Your task to perform on an android device: see tabs open on other devices in the chrome app Image 0: 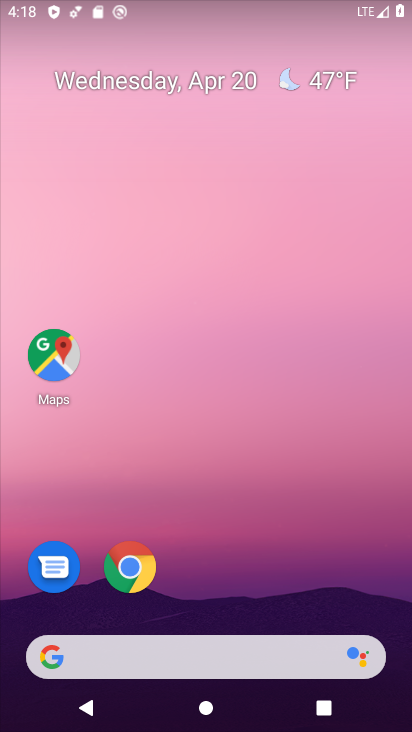
Step 0: click (249, 27)
Your task to perform on an android device: see tabs open on other devices in the chrome app Image 1: 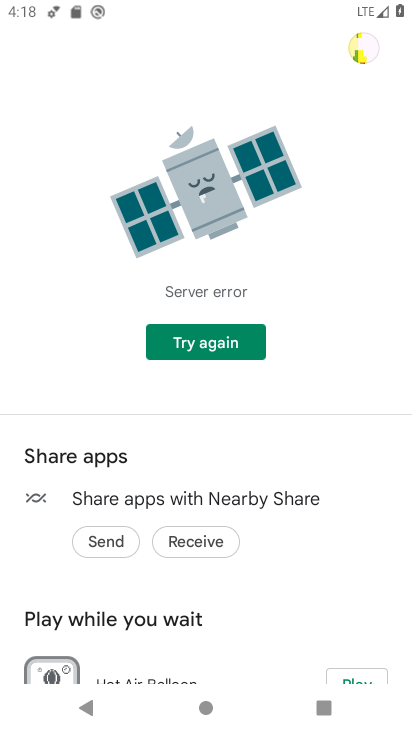
Step 1: press back button
Your task to perform on an android device: see tabs open on other devices in the chrome app Image 2: 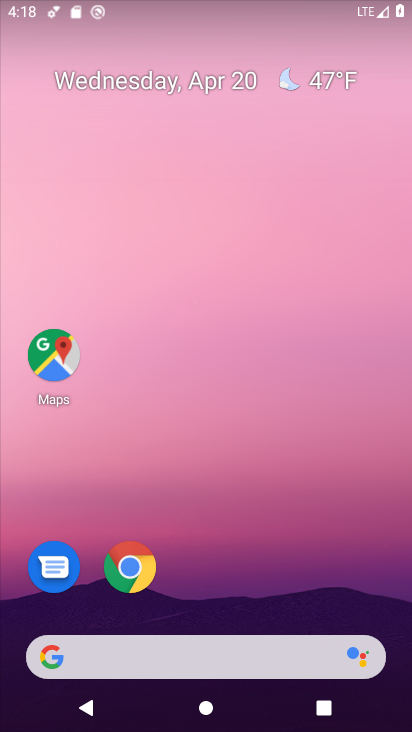
Step 2: drag from (262, 382) to (207, 2)
Your task to perform on an android device: see tabs open on other devices in the chrome app Image 3: 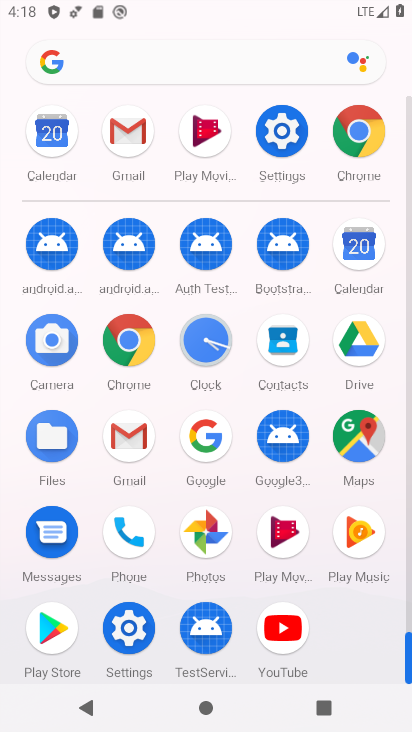
Step 3: click (127, 341)
Your task to perform on an android device: see tabs open on other devices in the chrome app Image 4: 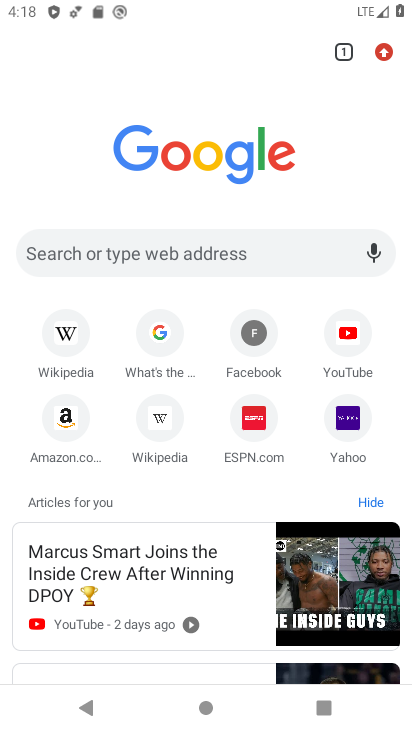
Step 4: task complete